Your task to perform on an android device: turn on priority inbox in the gmail app Image 0: 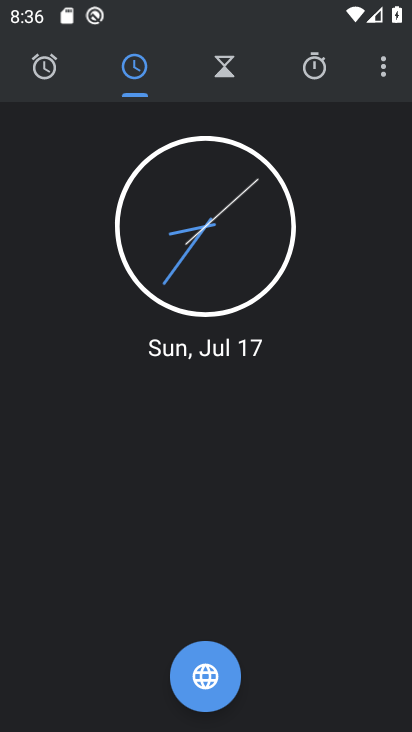
Step 0: press home button
Your task to perform on an android device: turn on priority inbox in the gmail app Image 1: 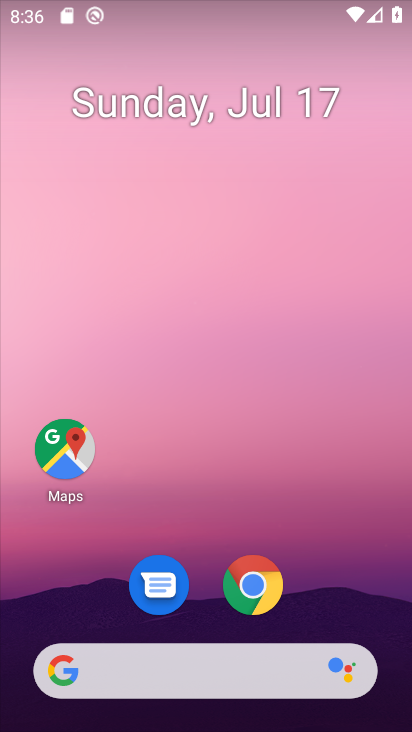
Step 1: drag from (340, 586) to (320, 74)
Your task to perform on an android device: turn on priority inbox in the gmail app Image 2: 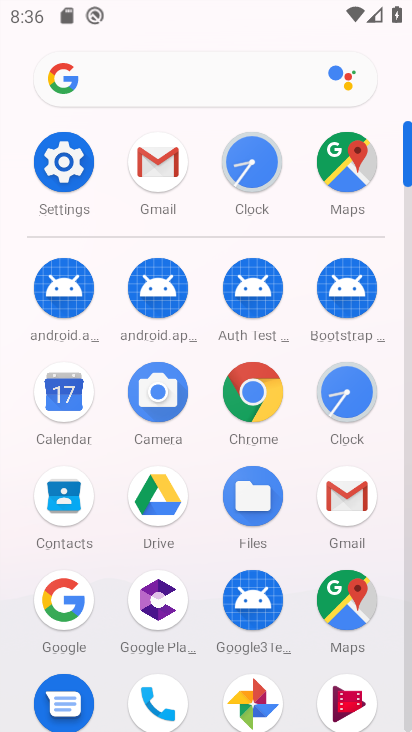
Step 2: click (167, 171)
Your task to perform on an android device: turn on priority inbox in the gmail app Image 3: 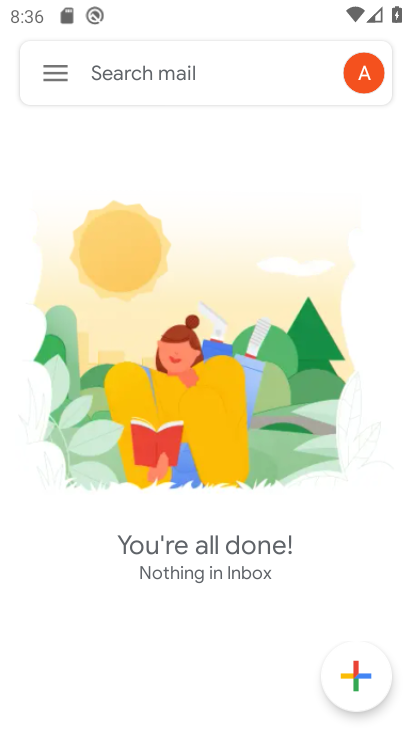
Step 3: click (60, 73)
Your task to perform on an android device: turn on priority inbox in the gmail app Image 4: 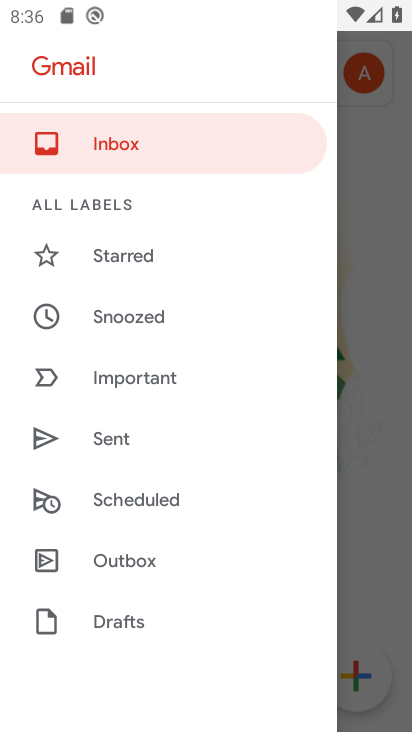
Step 4: drag from (140, 538) to (183, 51)
Your task to perform on an android device: turn on priority inbox in the gmail app Image 5: 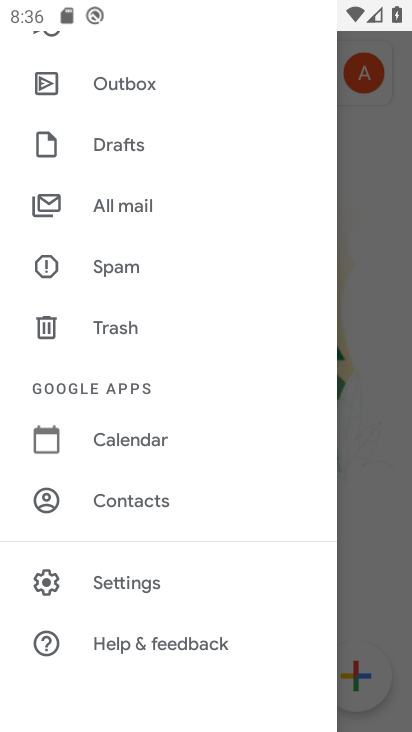
Step 5: click (160, 585)
Your task to perform on an android device: turn on priority inbox in the gmail app Image 6: 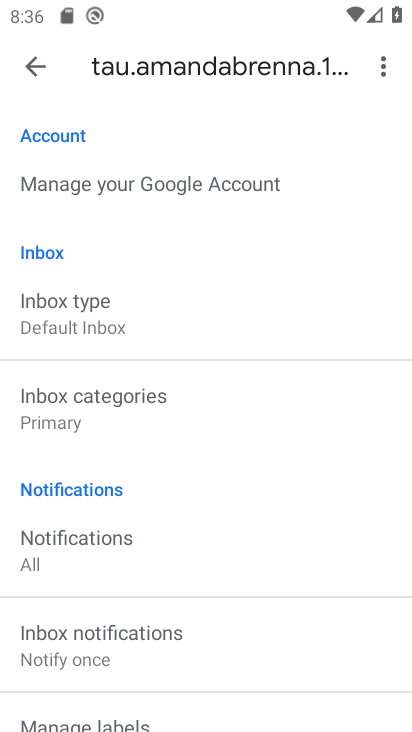
Step 6: click (94, 298)
Your task to perform on an android device: turn on priority inbox in the gmail app Image 7: 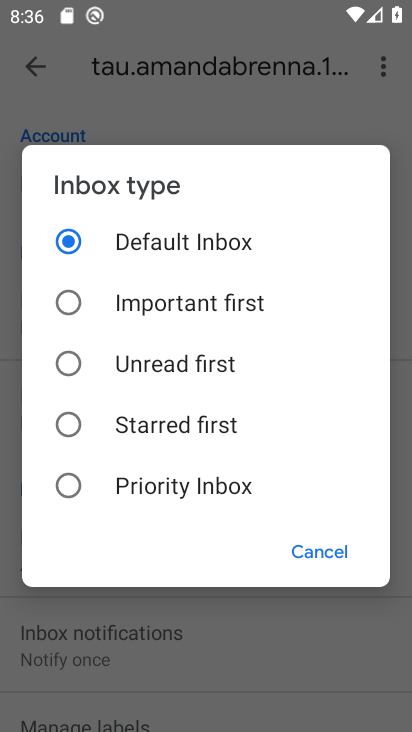
Step 7: click (66, 477)
Your task to perform on an android device: turn on priority inbox in the gmail app Image 8: 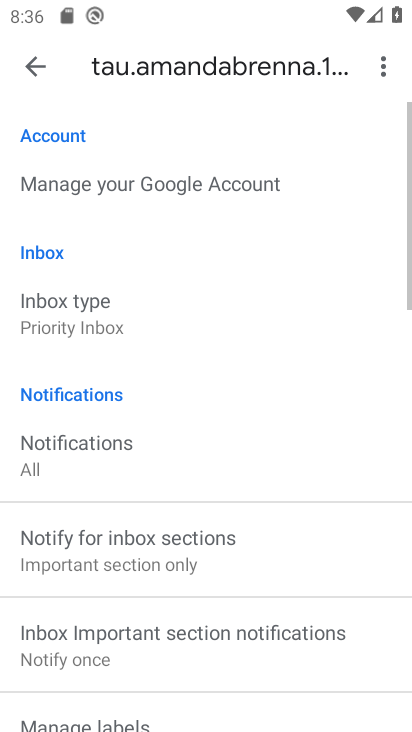
Step 8: task complete